Your task to perform on an android device: Search for beats solo 3 on amazon.com, select the first entry, and add it to the cart. Image 0: 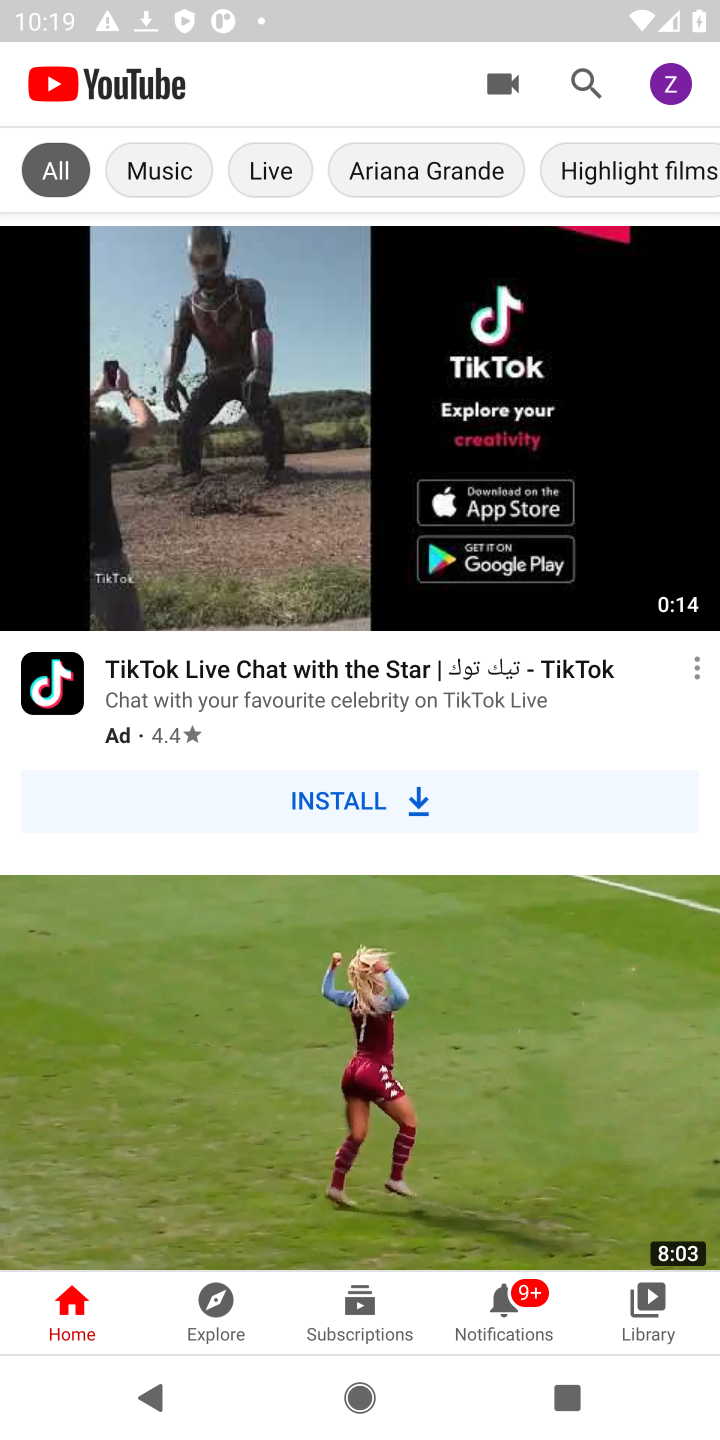
Step 0: press home button
Your task to perform on an android device: Search for beats solo 3 on amazon.com, select the first entry, and add it to the cart. Image 1: 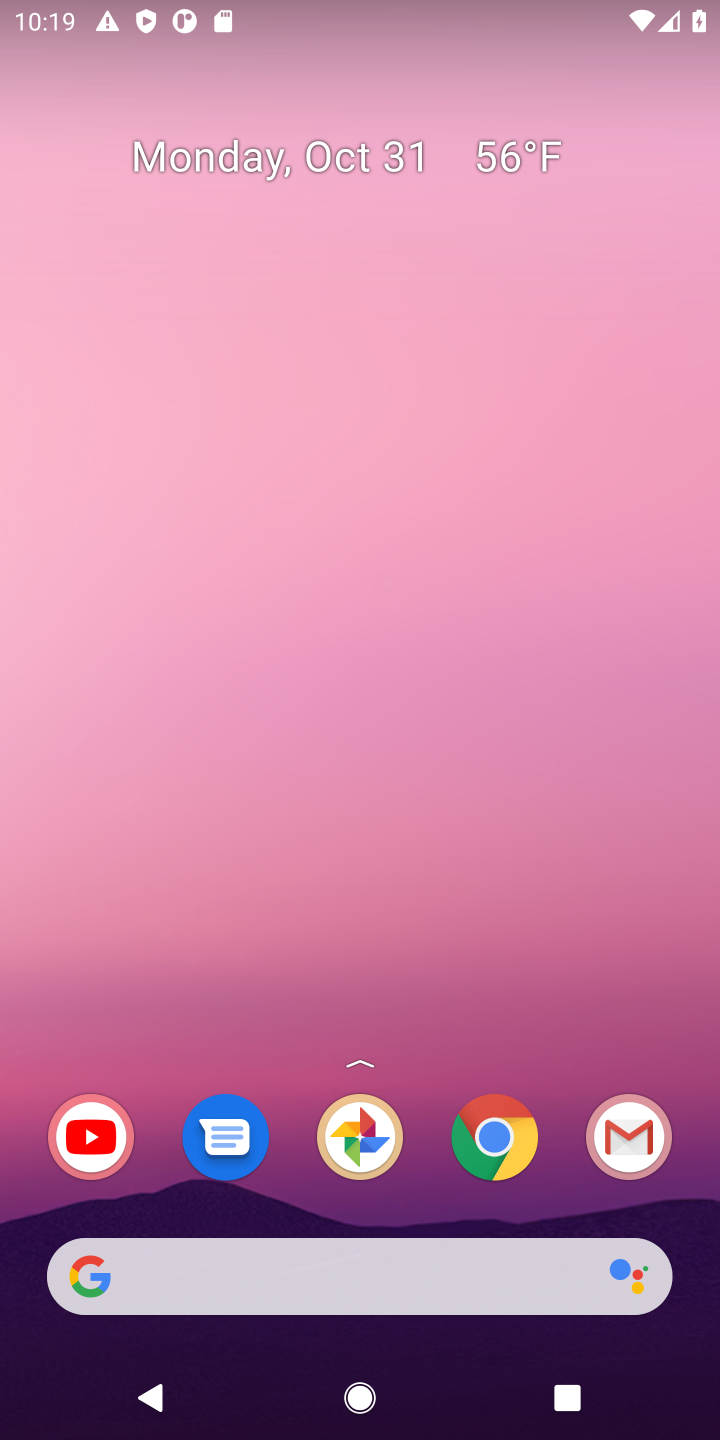
Step 1: click (496, 1145)
Your task to perform on an android device: Search for beats solo 3 on amazon.com, select the first entry, and add it to the cart. Image 2: 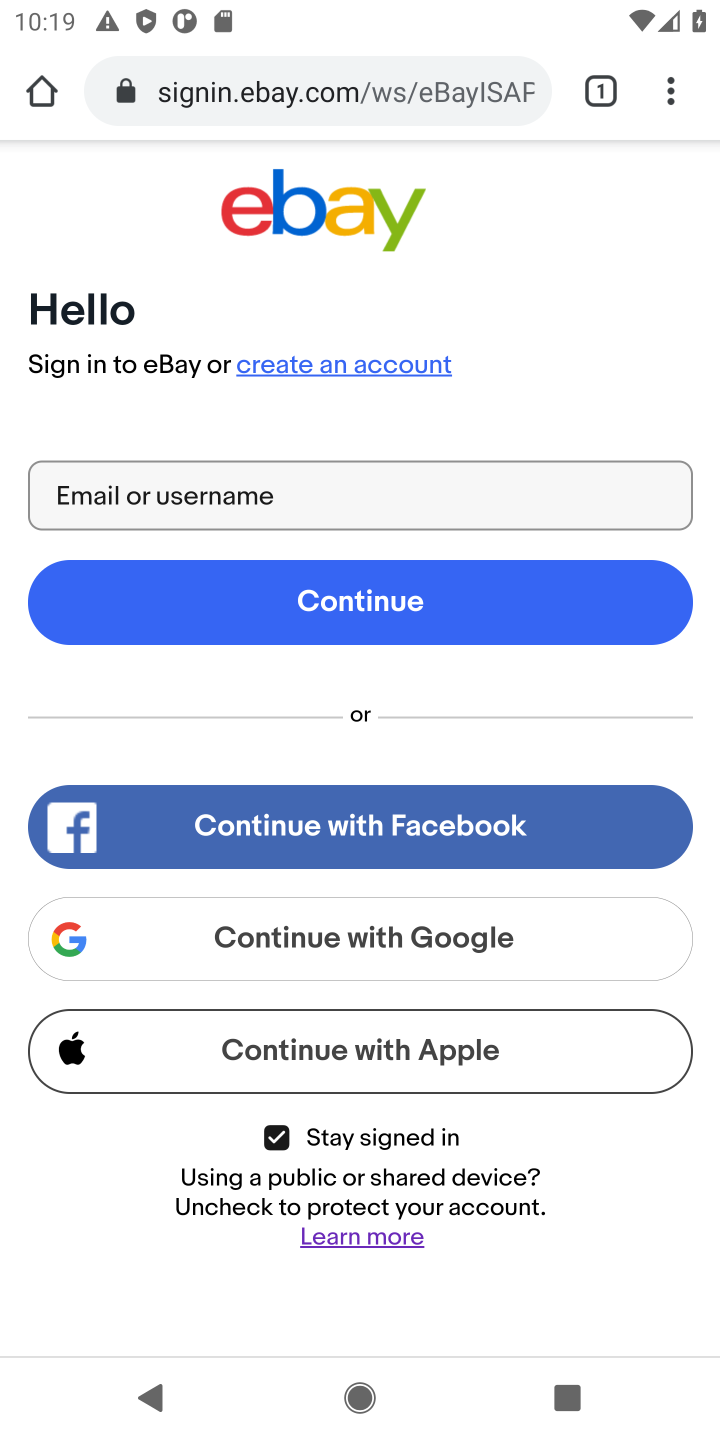
Step 2: click (437, 88)
Your task to perform on an android device: Search for beats solo 3 on amazon.com, select the first entry, and add it to the cart. Image 3: 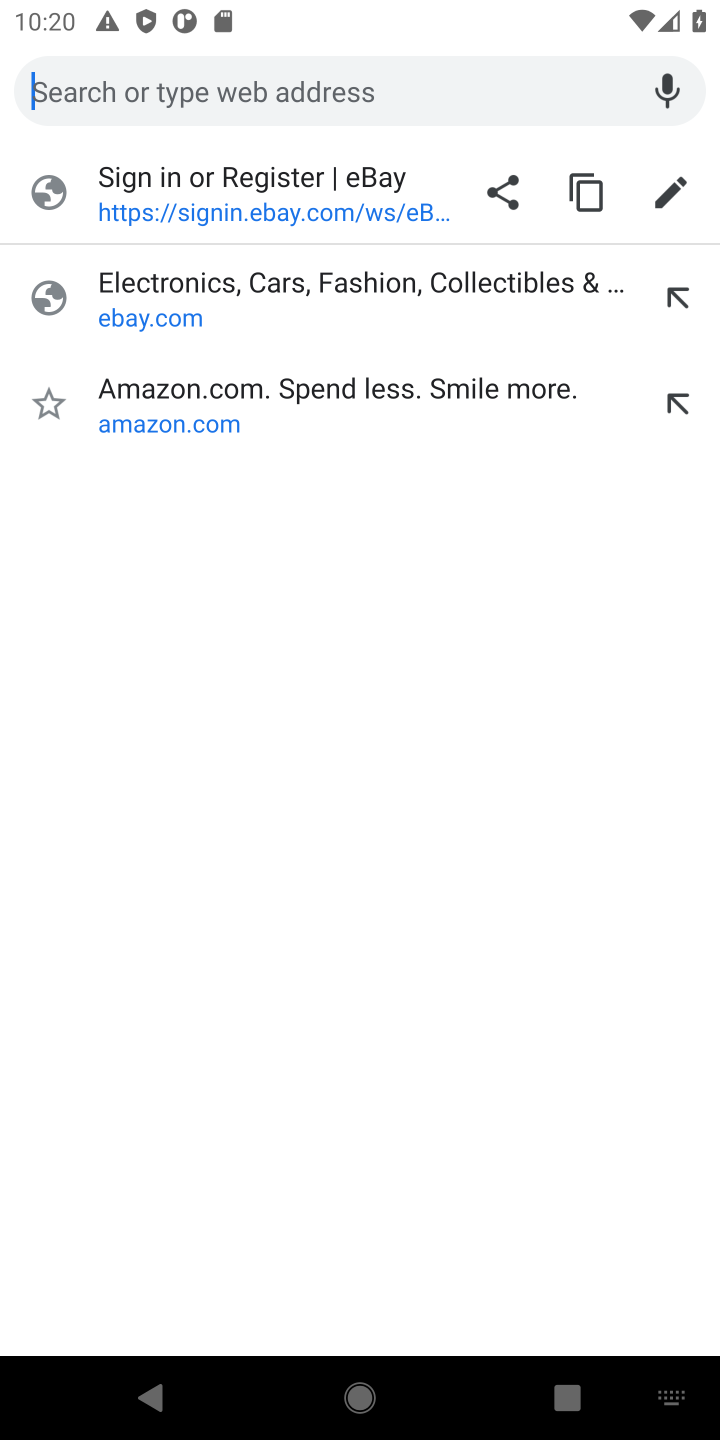
Step 3: type "amazon.com"
Your task to perform on an android device: Search for beats solo 3 on amazon.com, select the first entry, and add it to the cart. Image 4: 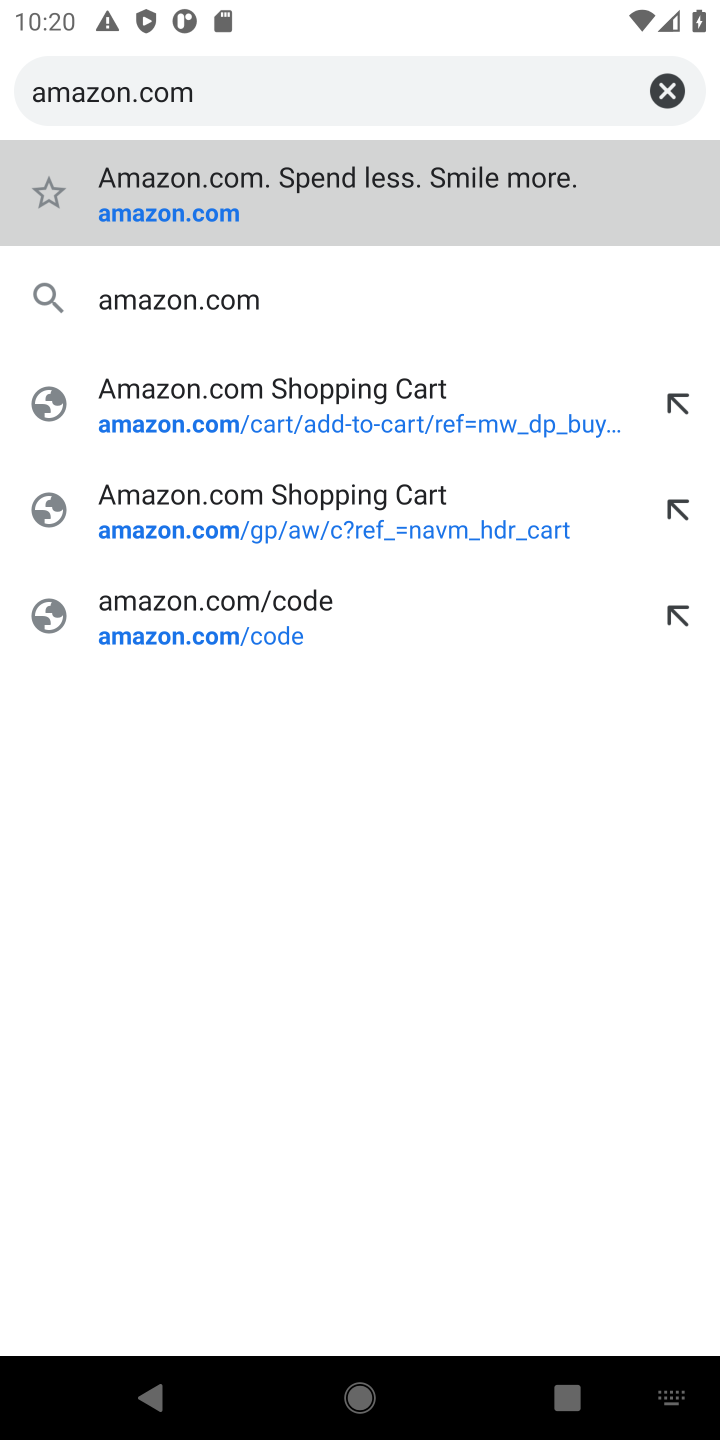
Step 4: click (170, 303)
Your task to perform on an android device: Search for beats solo 3 on amazon.com, select the first entry, and add it to the cart. Image 5: 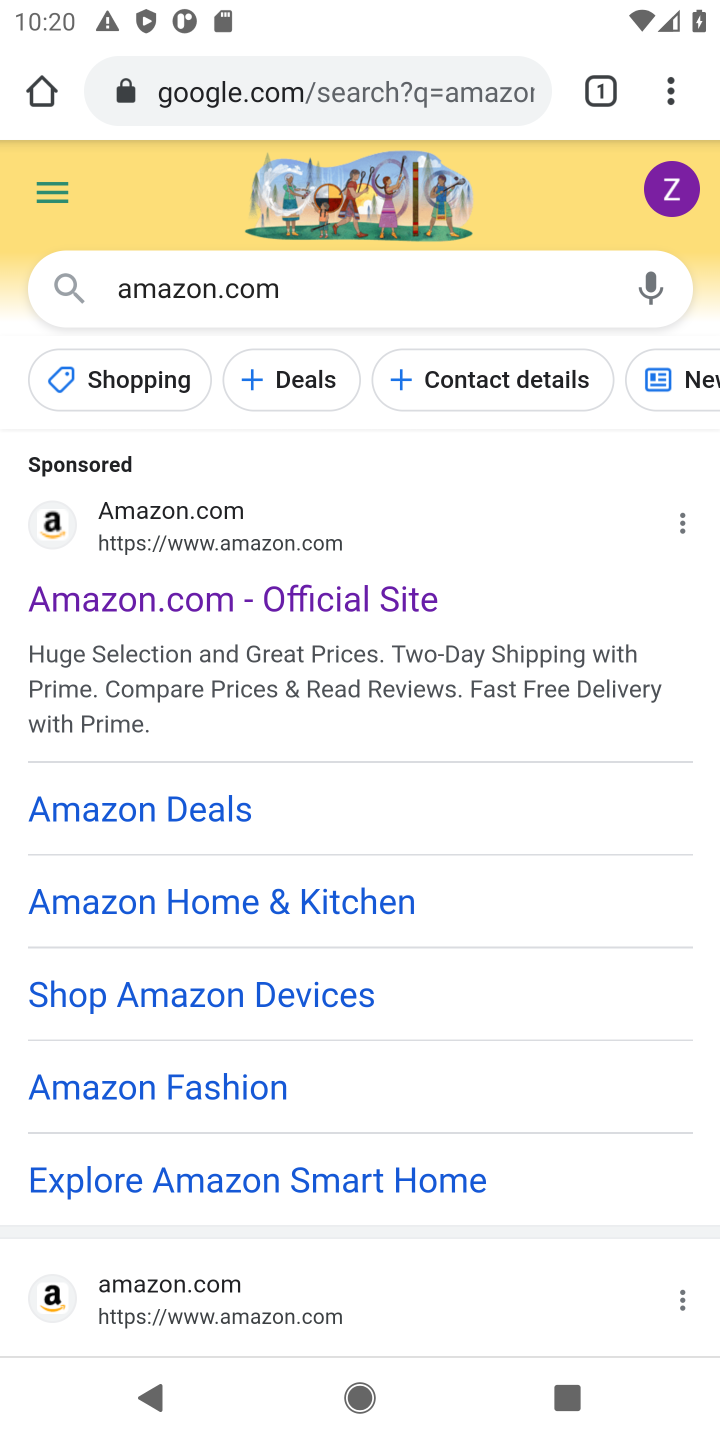
Step 5: drag from (311, 776) to (406, 363)
Your task to perform on an android device: Search for beats solo 3 on amazon.com, select the first entry, and add it to the cart. Image 6: 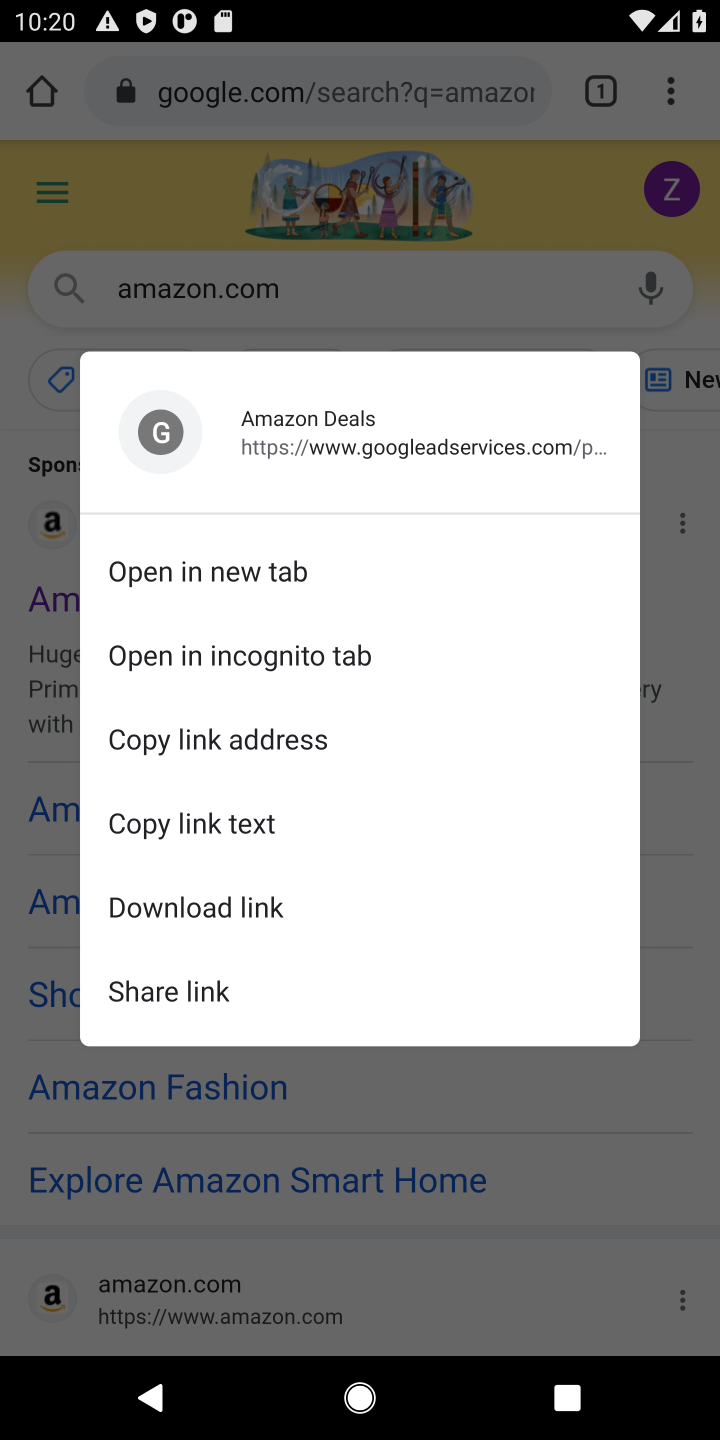
Step 6: click (683, 579)
Your task to perform on an android device: Search for beats solo 3 on amazon.com, select the first entry, and add it to the cart. Image 7: 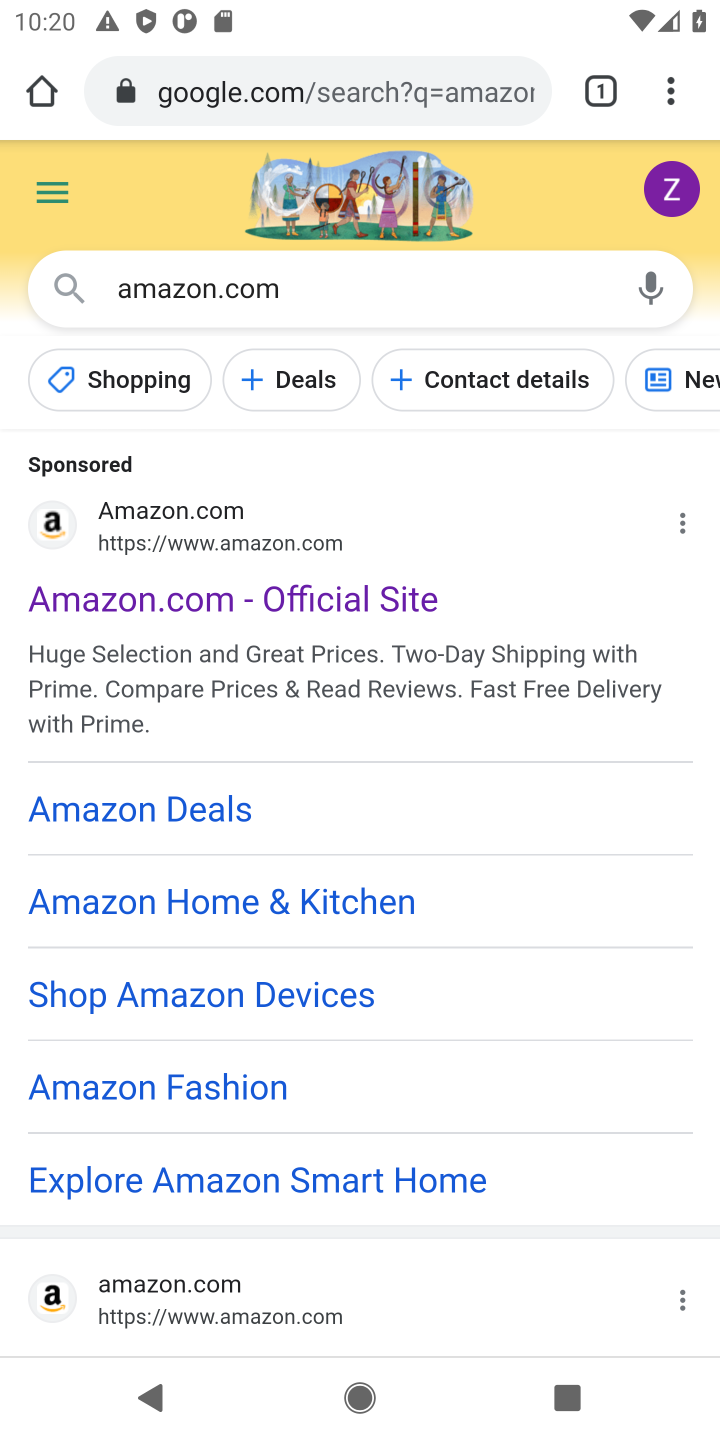
Step 7: drag from (287, 1116) to (308, 273)
Your task to perform on an android device: Search for beats solo 3 on amazon.com, select the first entry, and add it to the cart. Image 8: 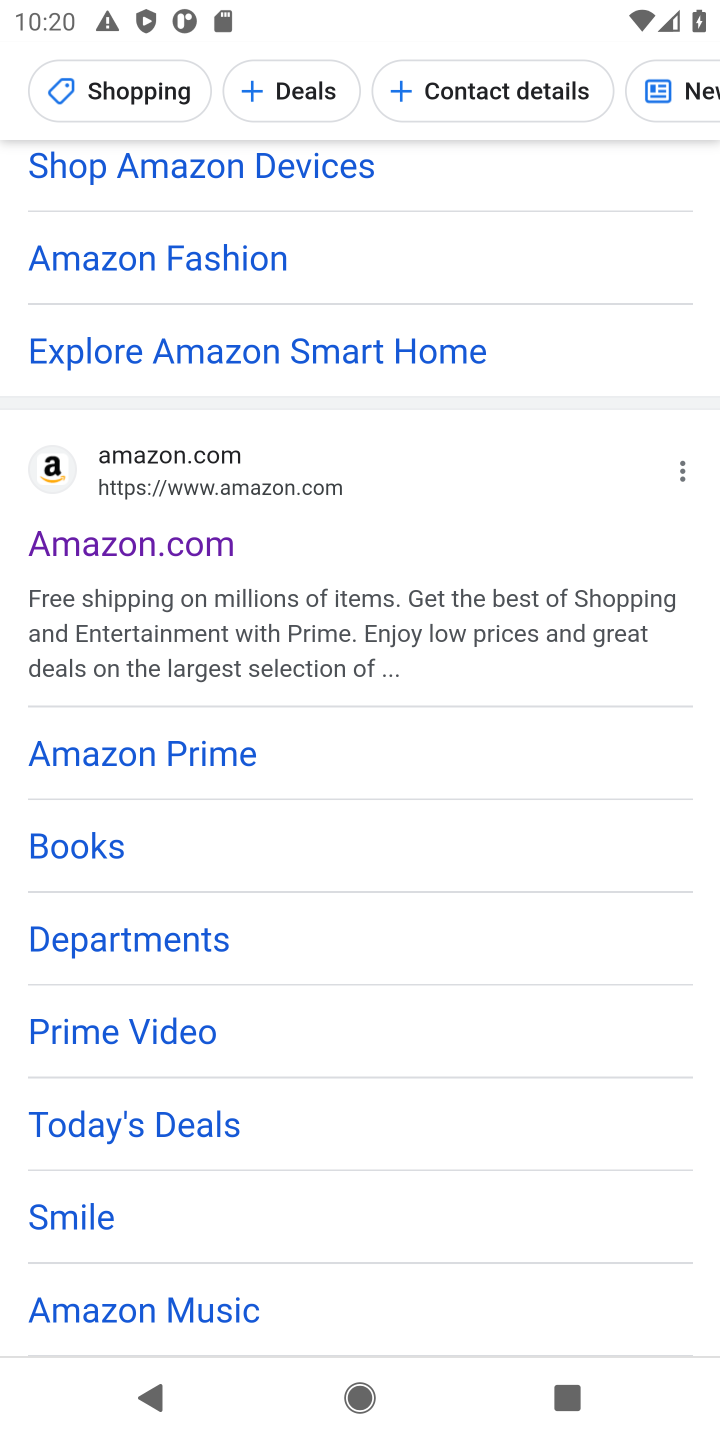
Step 8: click (176, 552)
Your task to perform on an android device: Search for beats solo 3 on amazon.com, select the first entry, and add it to the cart. Image 9: 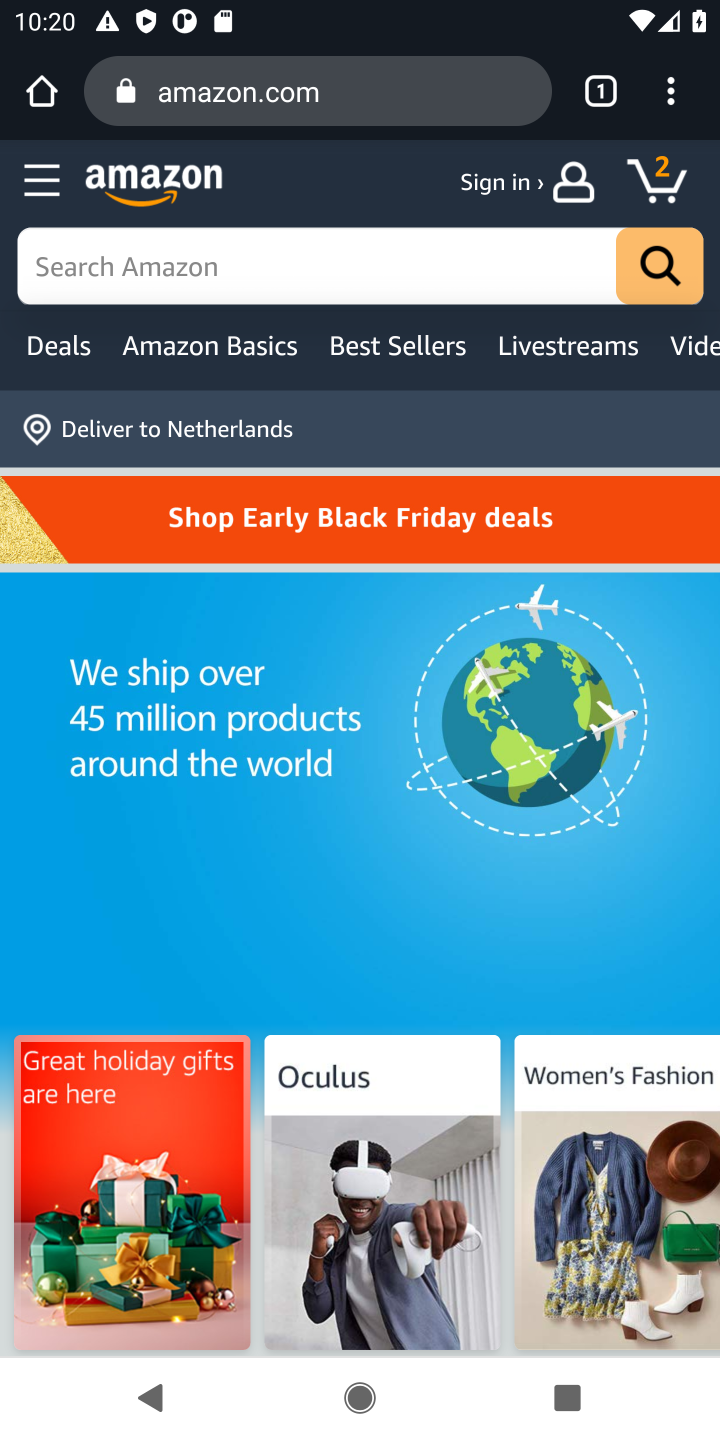
Step 9: click (326, 254)
Your task to perform on an android device: Search for beats solo 3 on amazon.com, select the first entry, and add it to the cart. Image 10: 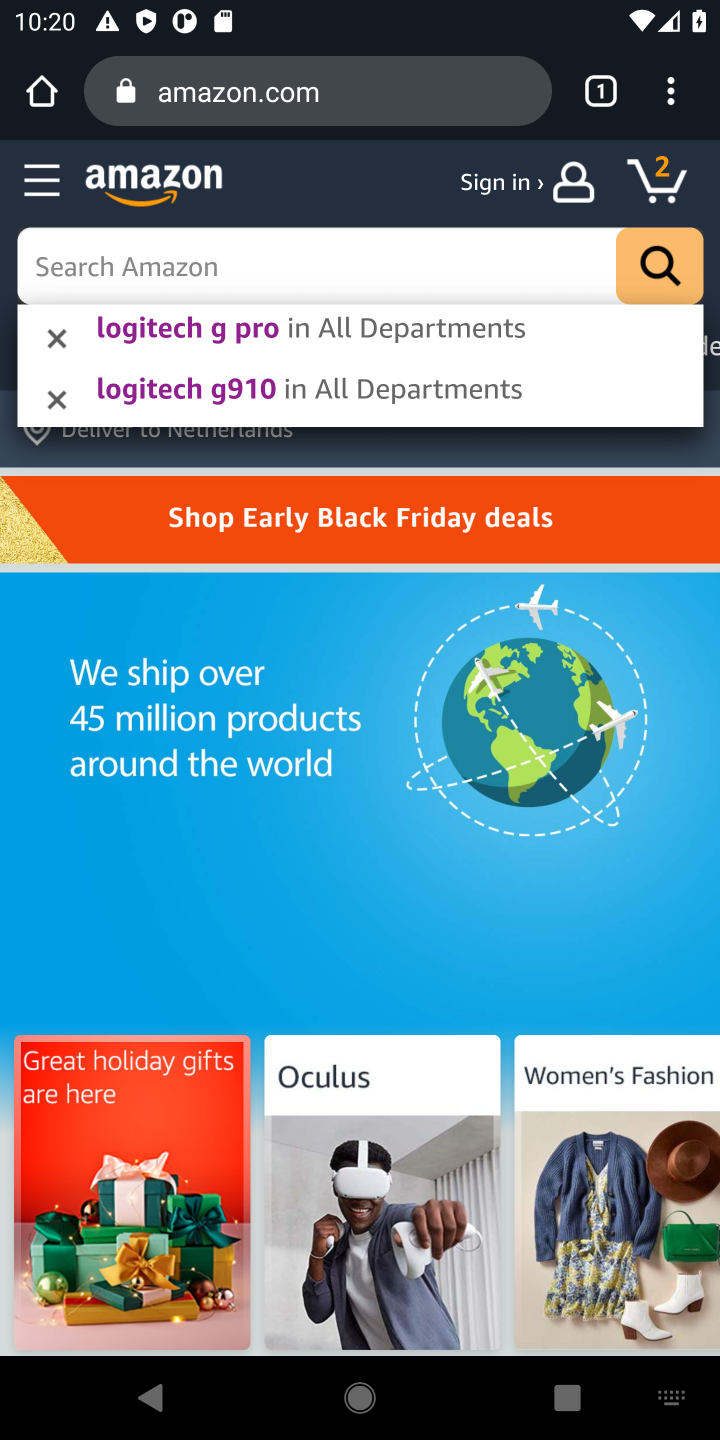
Step 10: type "beats solo 3"
Your task to perform on an android device: Search for beats solo 3 on amazon.com, select the first entry, and add it to the cart. Image 11: 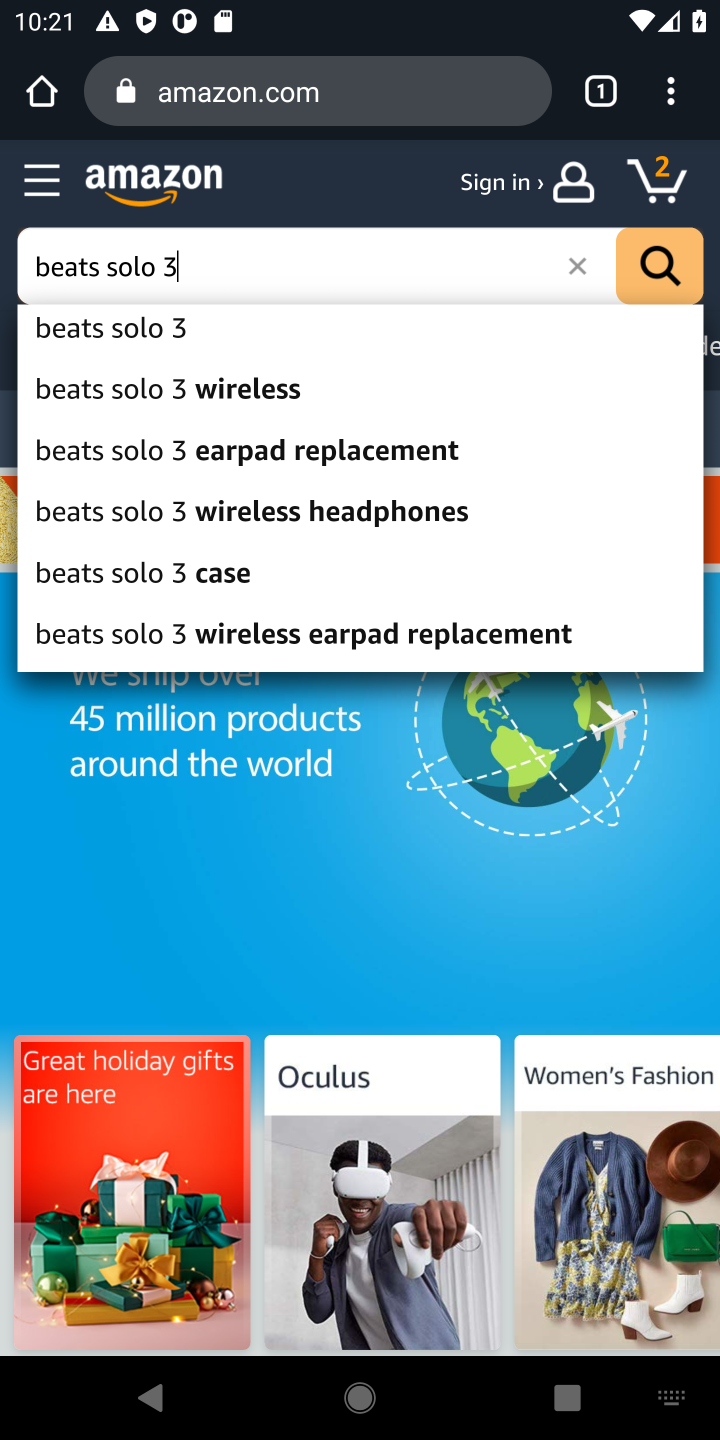
Step 11: click (118, 324)
Your task to perform on an android device: Search for beats solo 3 on amazon.com, select the first entry, and add it to the cart. Image 12: 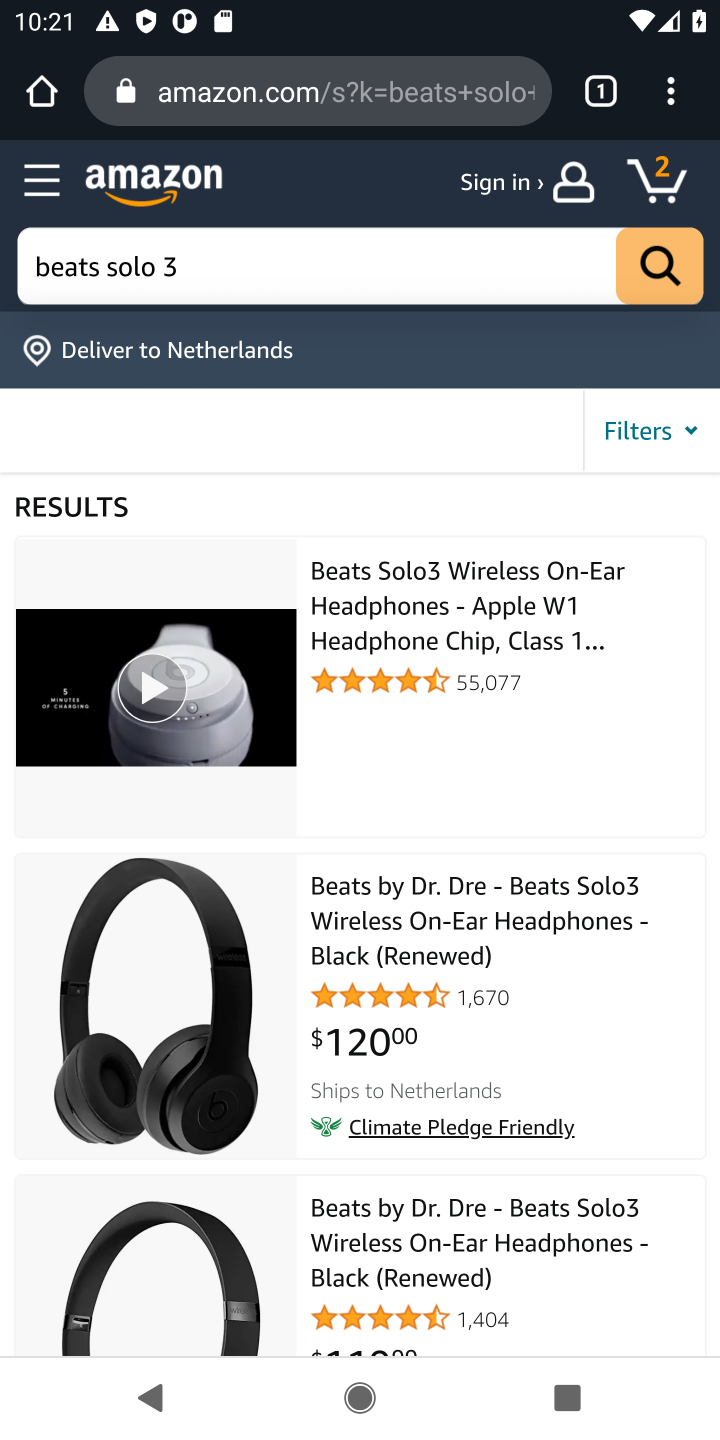
Step 12: click (516, 913)
Your task to perform on an android device: Search for beats solo 3 on amazon.com, select the first entry, and add it to the cart. Image 13: 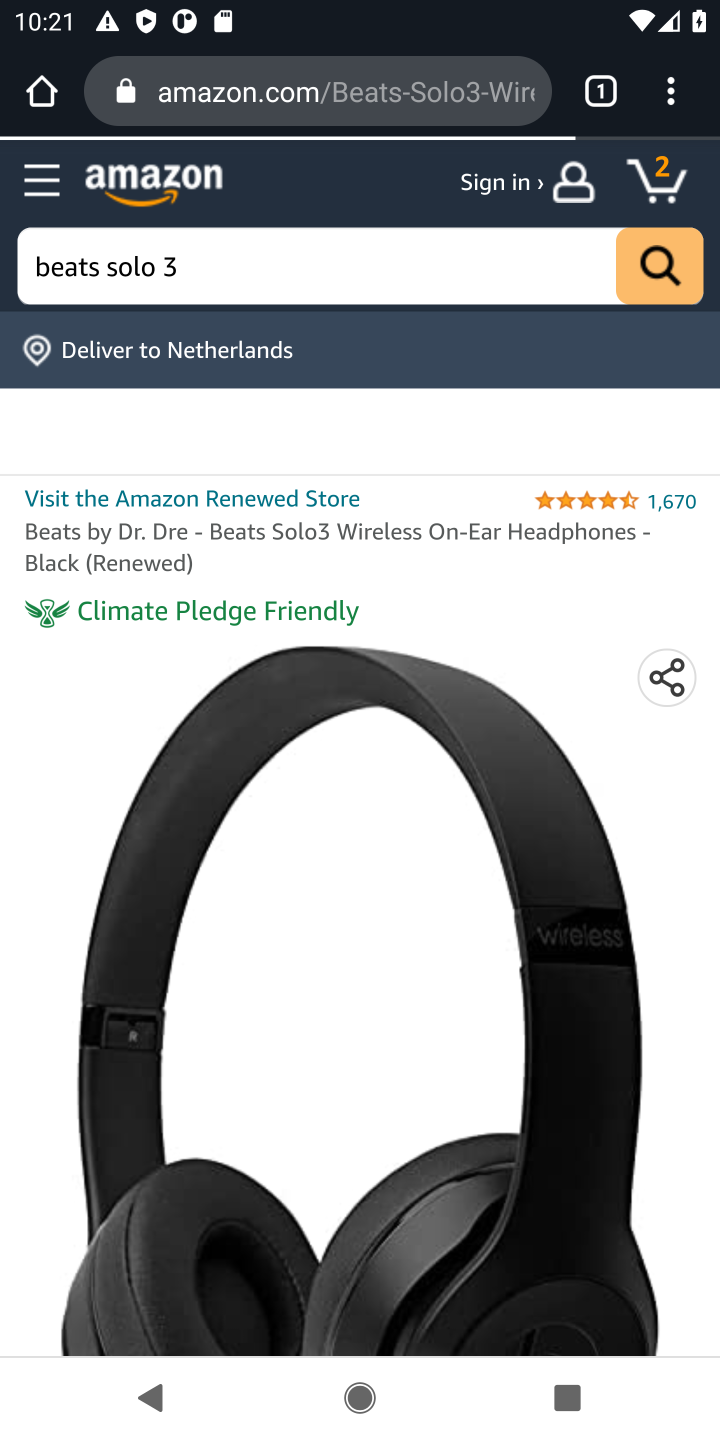
Step 13: drag from (484, 979) to (491, 350)
Your task to perform on an android device: Search for beats solo 3 on amazon.com, select the first entry, and add it to the cart. Image 14: 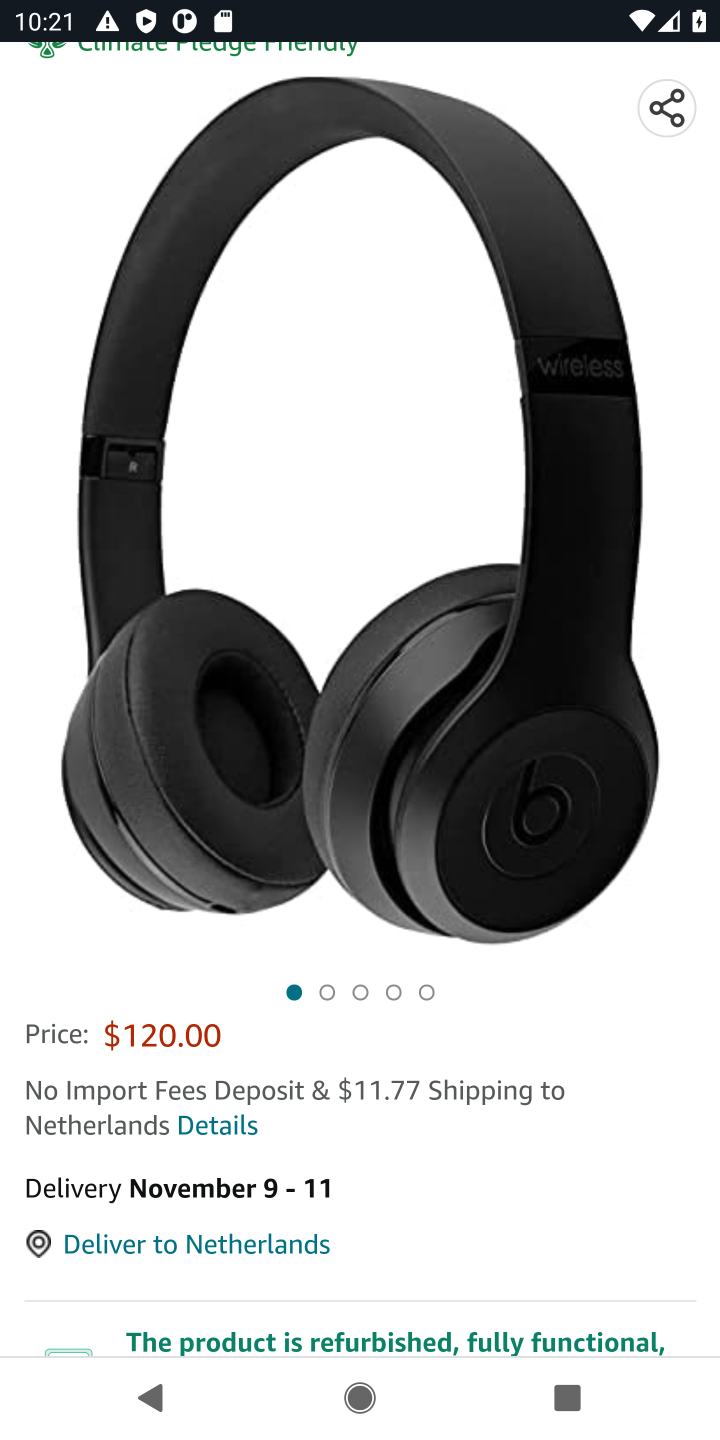
Step 14: drag from (401, 807) to (437, 379)
Your task to perform on an android device: Search for beats solo 3 on amazon.com, select the first entry, and add it to the cart. Image 15: 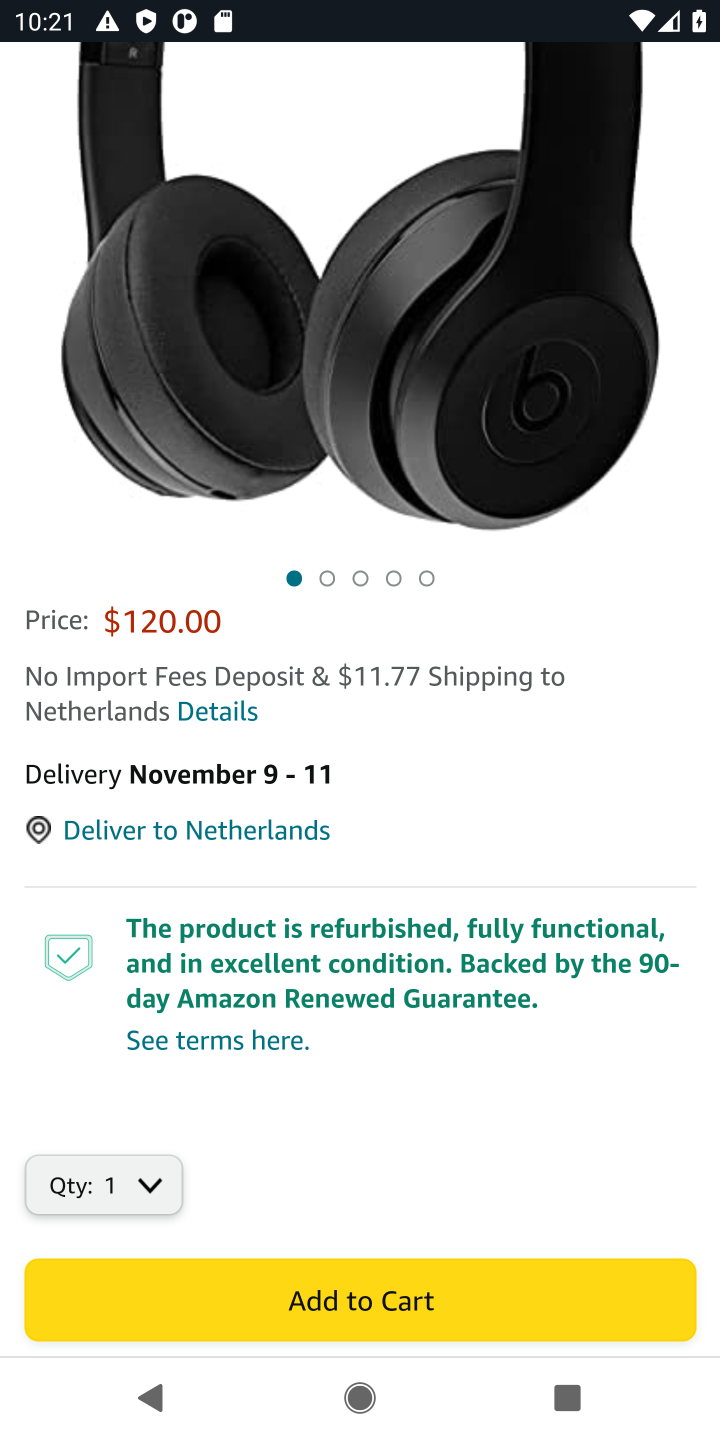
Step 15: click (359, 1284)
Your task to perform on an android device: Search for beats solo 3 on amazon.com, select the first entry, and add it to the cart. Image 16: 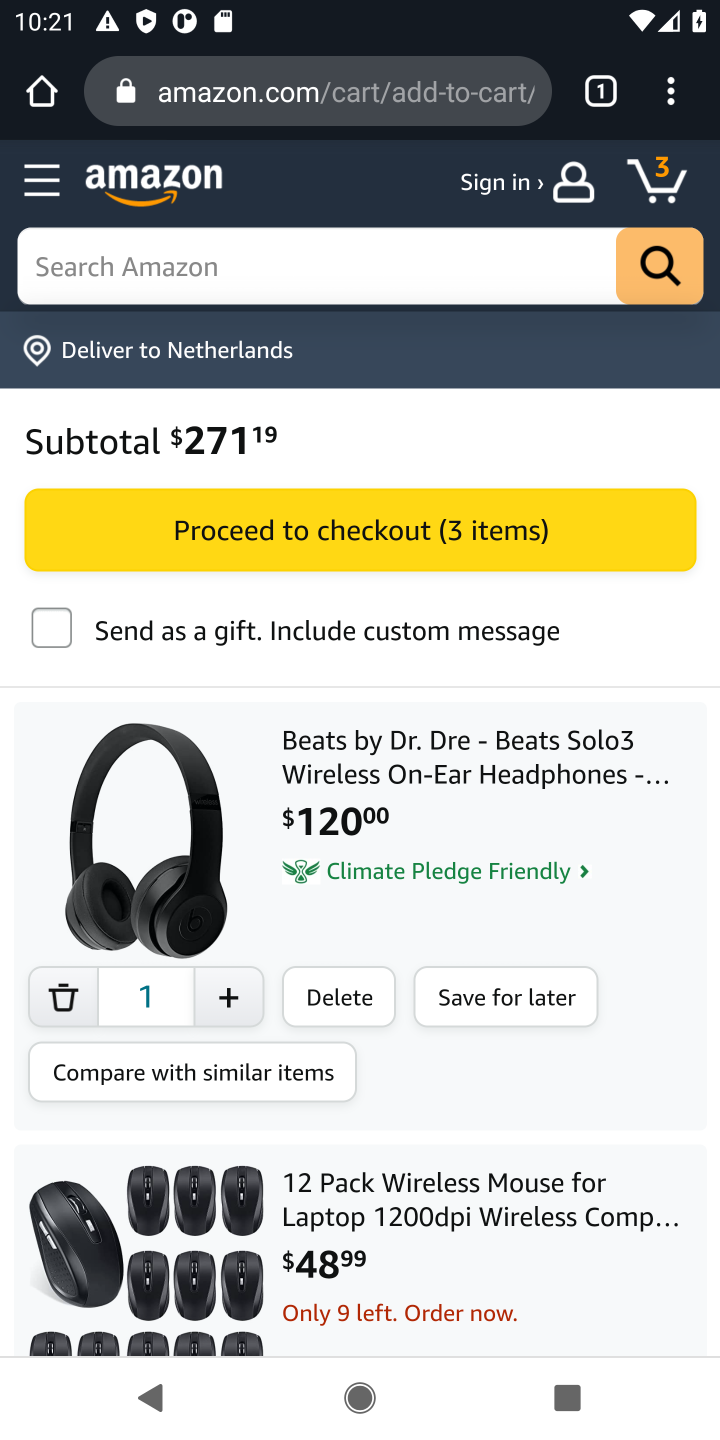
Step 16: press back button
Your task to perform on an android device: Search for beats solo 3 on amazon.com, select the first entry, and add it to the cart. Image 17: 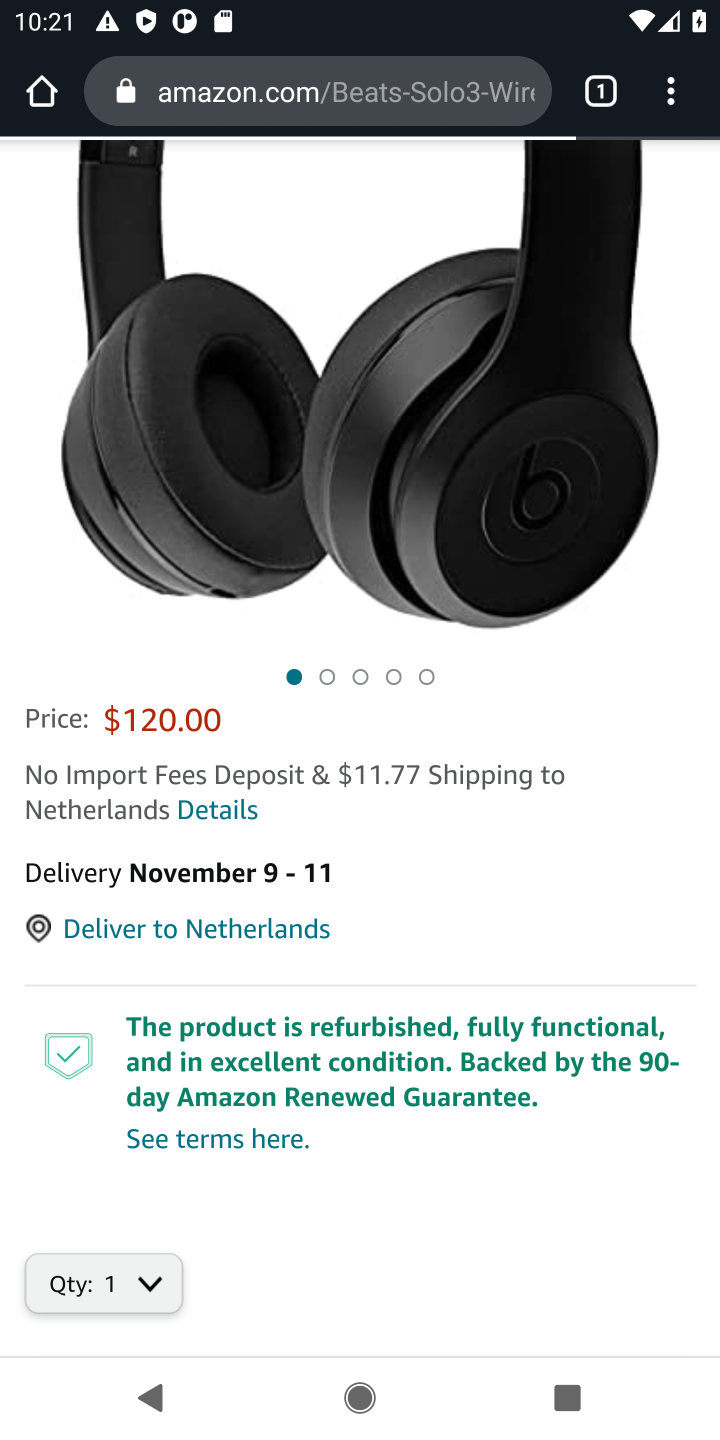
Step 17: press back button
Your task to perform on an android device: Search for beats solo 3 on amazon.com, select the first entry, and add it to the cart. Image 18: 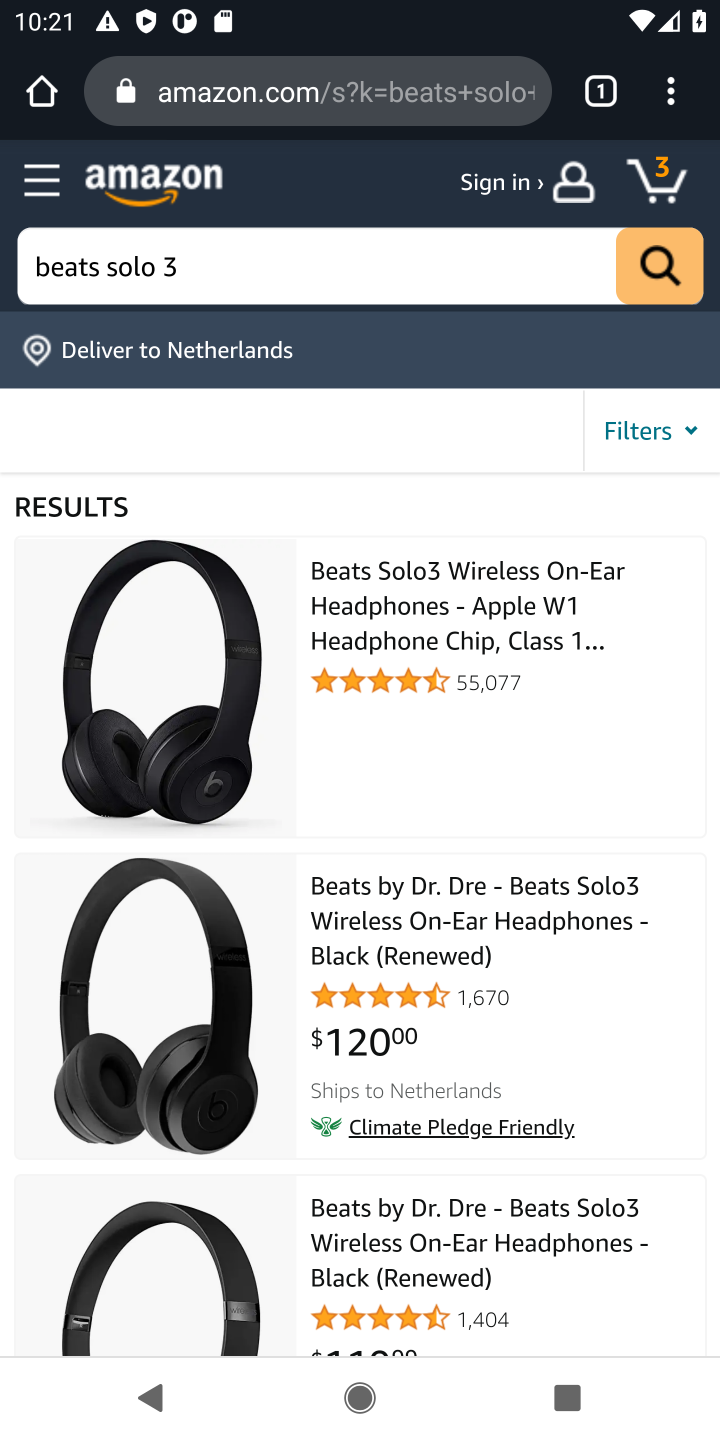
Step 18: click (422, 602)
Your task to perform on an android device: Search for beats solo 3 on amazon.com, select the first entry, and add it to the cart. Image 19: 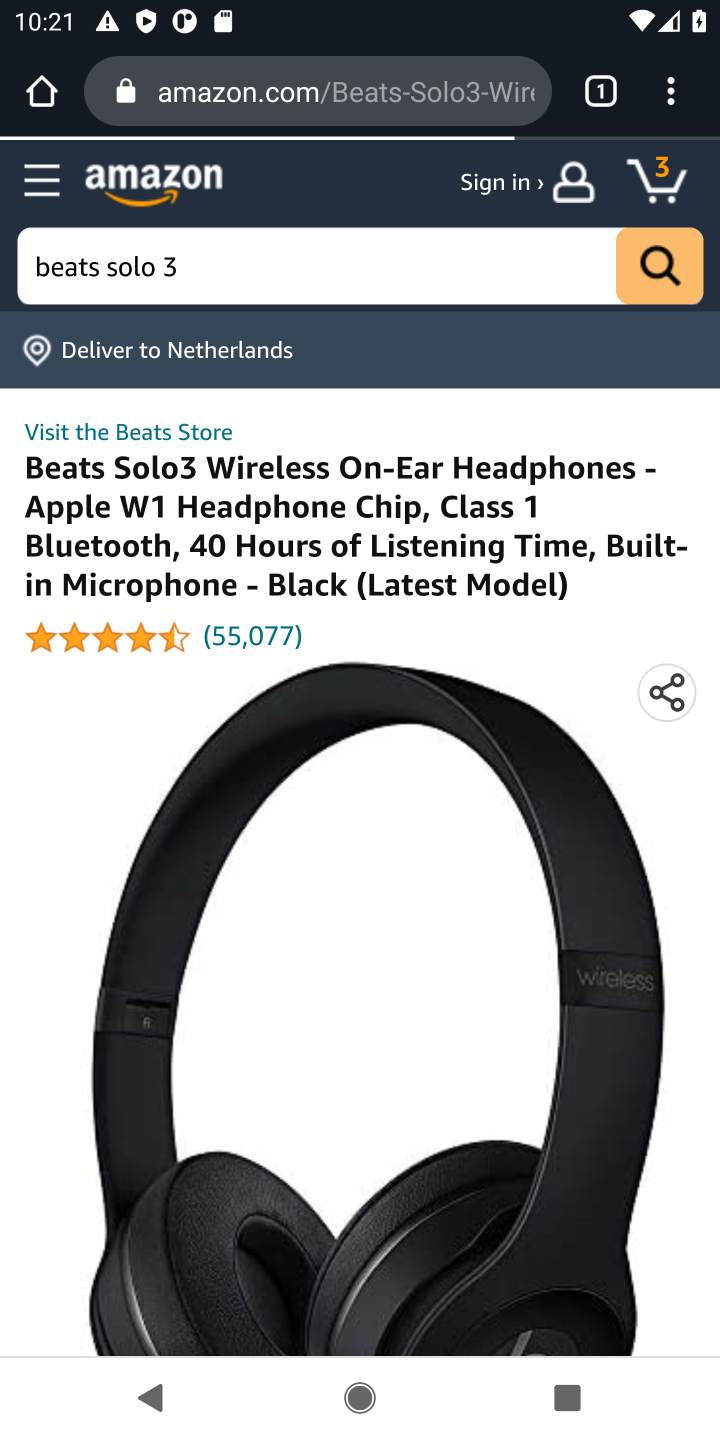
Step 19: task complete